Your task to perform on an android device: turn on notifications settings in the gmail app Image 0: 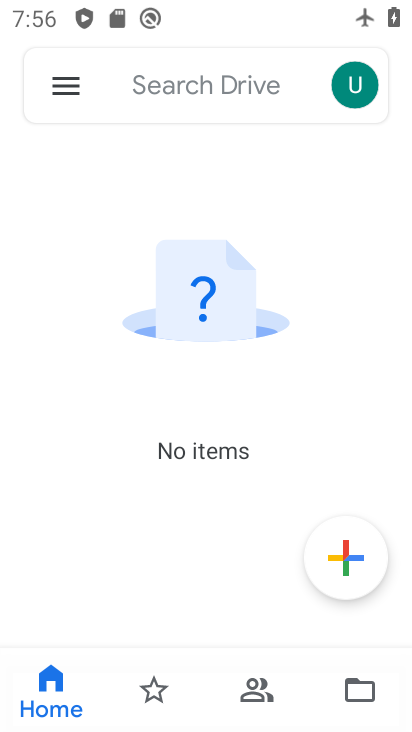
Step 0: press back button
Your task to perform on an android device: turn on notifications settings in the gmail app Image 1: 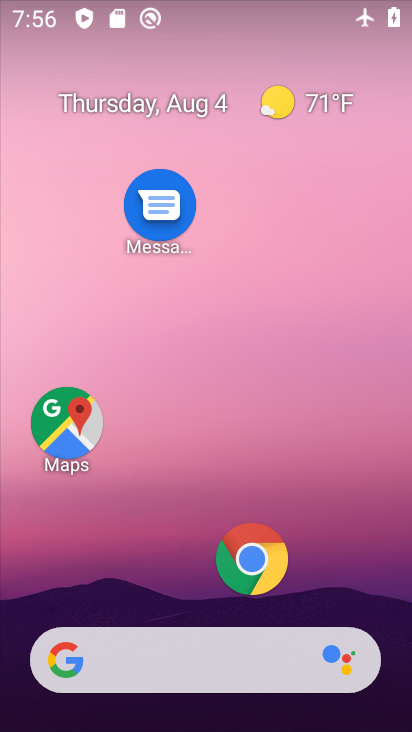
Step 1: drag from (324, 625) to (405, 229)
Your task to perform on an android device: turn on notifications settings in the gmail app Image 2: 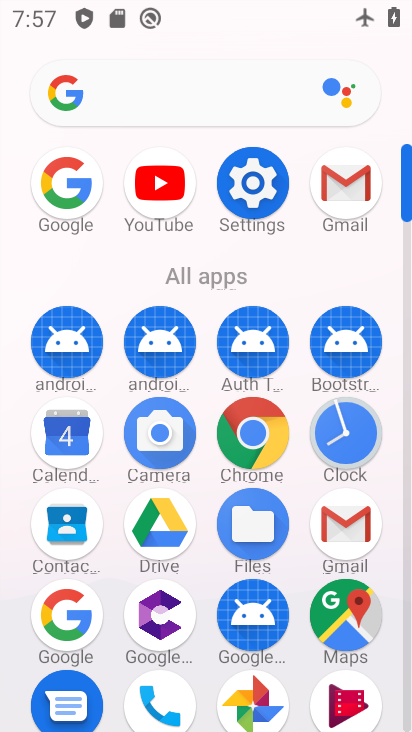
Step 2: click (359, 549)
Your task to perform on an android device: turn on notifications settings in the gmail app Image 3: 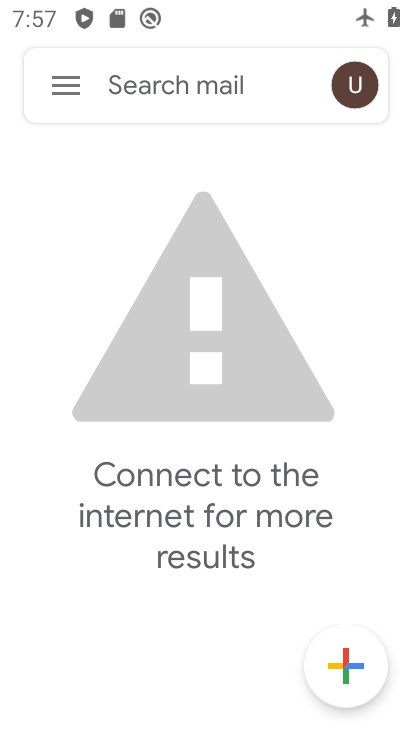
Step 3: click (62, 82)
Your task to perform on an android device: turn on notifications settings in the gmail app Image 4: 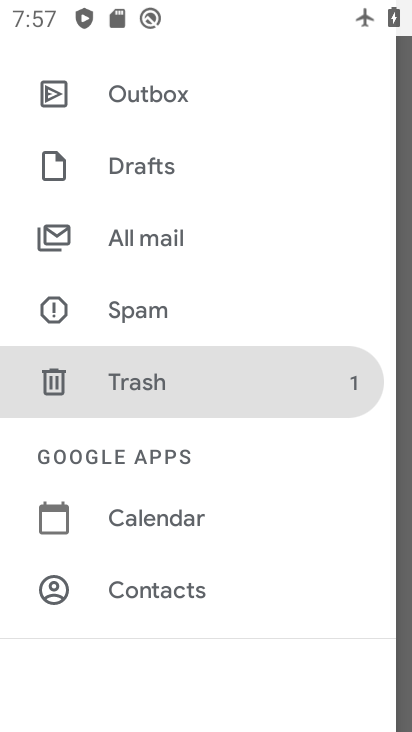
Step 4: drag from (230, 549) to (221, 35)
Your task to perform on an android device: turn on notifications settings in the gmail app Image 5: 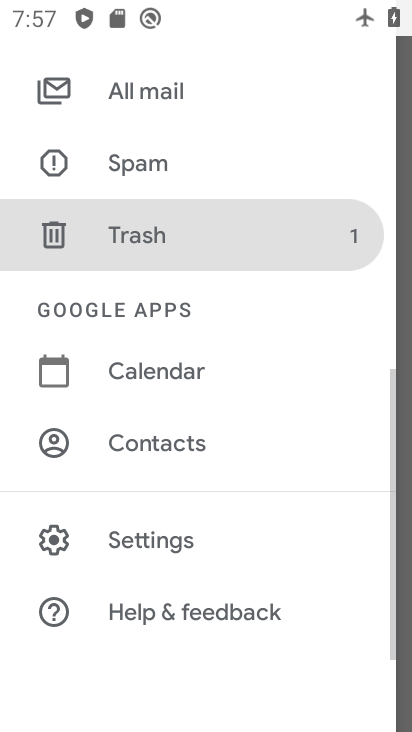
Step 5: click (158, 563)
Your task to perform on an android device: turn on notifications settings in the gmail app Image 6: 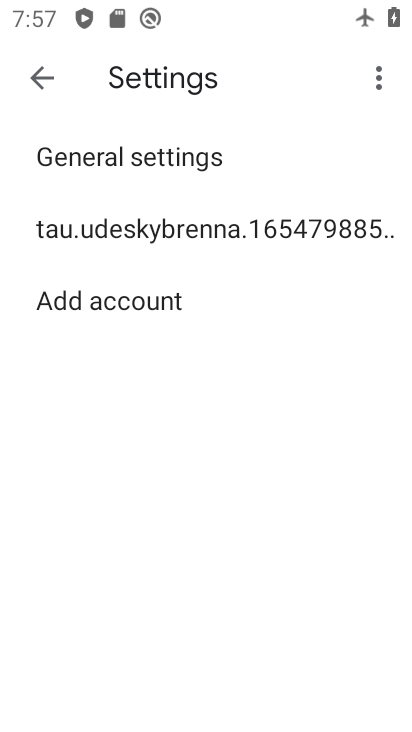
Step 6: click (106, 173)
Your task to perform on an android device: turn on notifications settings in the gmail app Image 7: 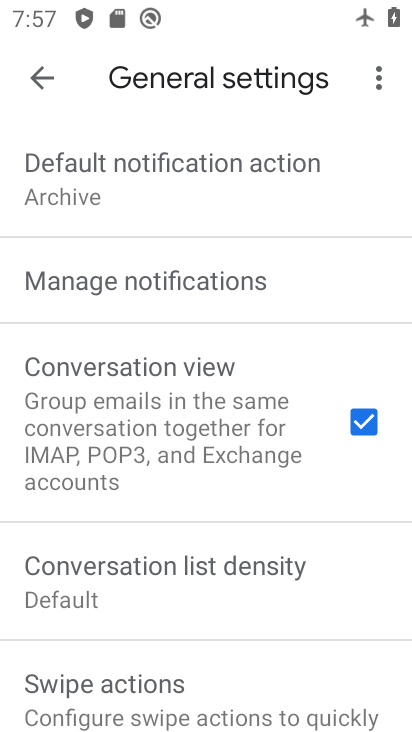
Step 7: click (179, 265)
Your task to perform on an android device: turn on notifications settings in the gmail app Image 8: 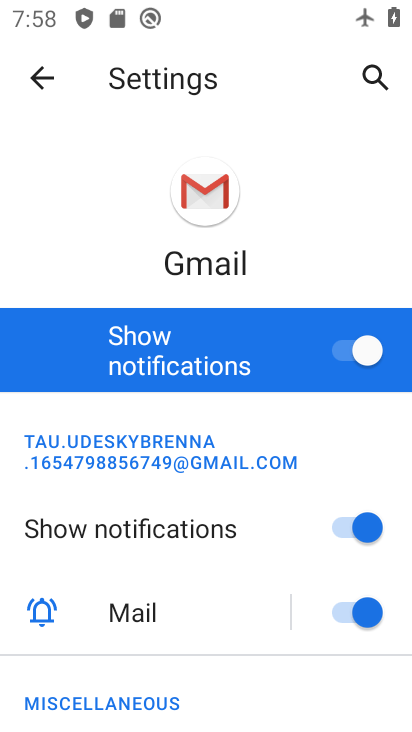
Step 8: task complete